Your task to perform on an android device: toggle notifications settings in the gmail app Image 0: 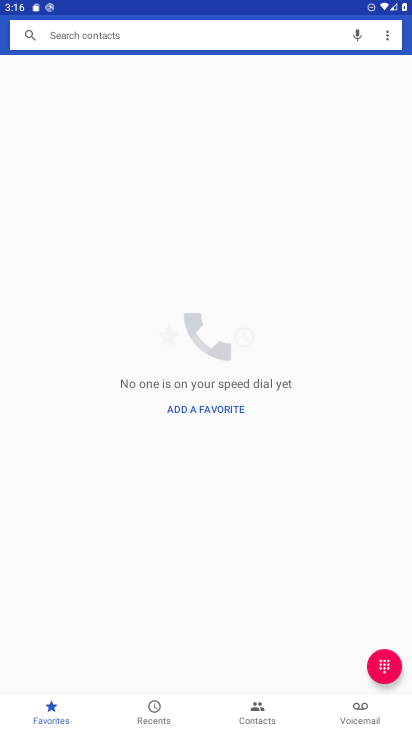
Step 0: press home button
Your task to perform on an android device: toggle notifications settings in the gmail app Image 1: 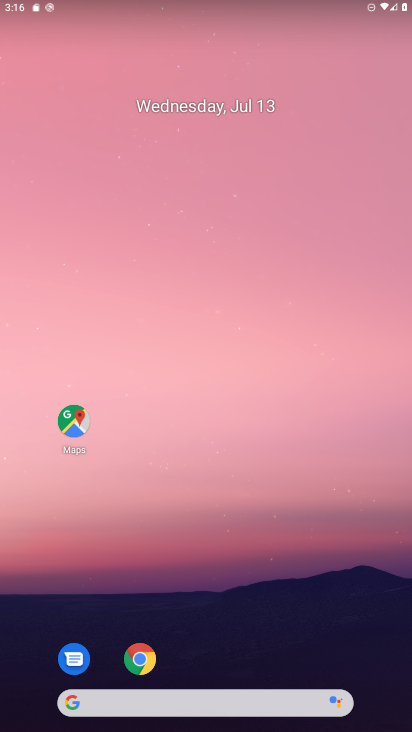
Step 1: drag from (388, 684) to (315, 70)
Your task to perform on an android device: toggle notifications settings in the gmail app Image 2: 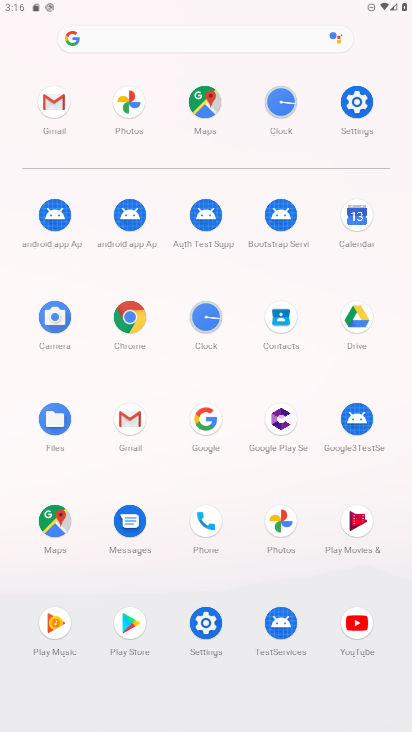
Step 2: click (129, 418)
Your task to perform on an android device: toggle notifications settings in the gmail app Image 3: 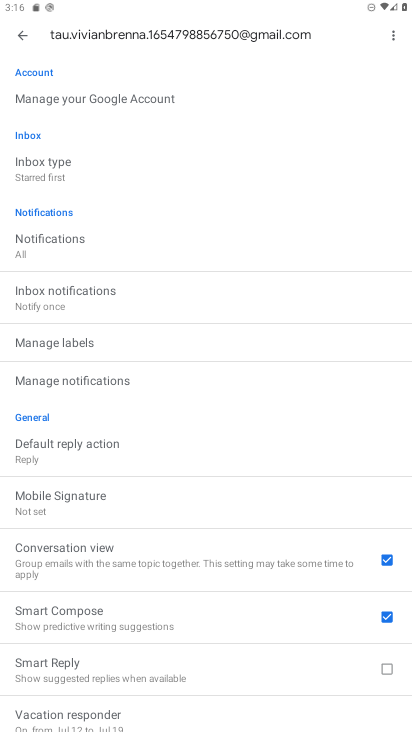
Step 3: click (72, 382)
Your task to perform on an android device: toggle notifications settings in the gmail app Image 4: 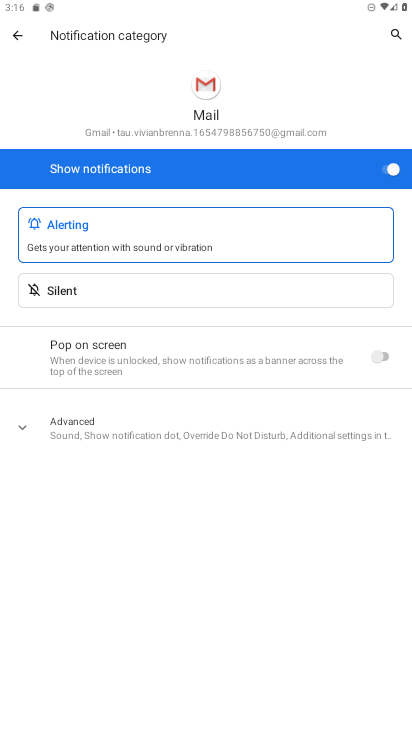
Step 4: click (381, 172)
Your task to perform on an android device: toggle notifications settings in the gmail app Image 5: 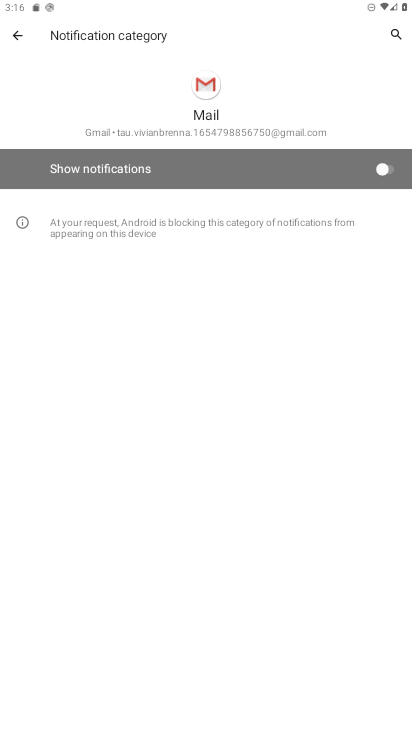
Step 5: task complete